Your task to perform on an android device: see tabs open on other devices in the chrome app Image 0: 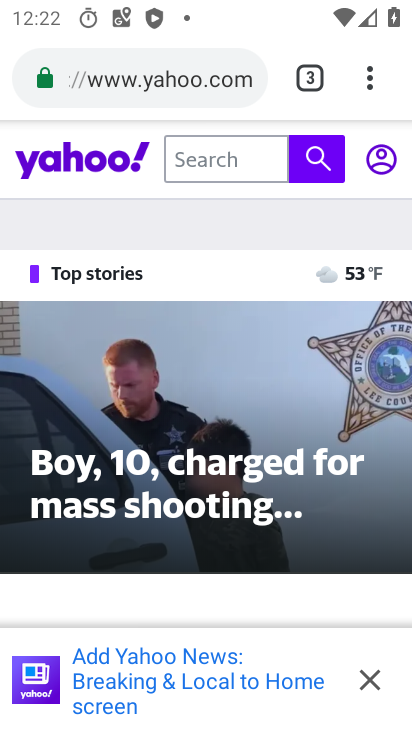
Step 0: drag from (369, 77) to (156, 376)
Your task to perform on an android device: see tabs open on other devices in the chrome app Image 1: 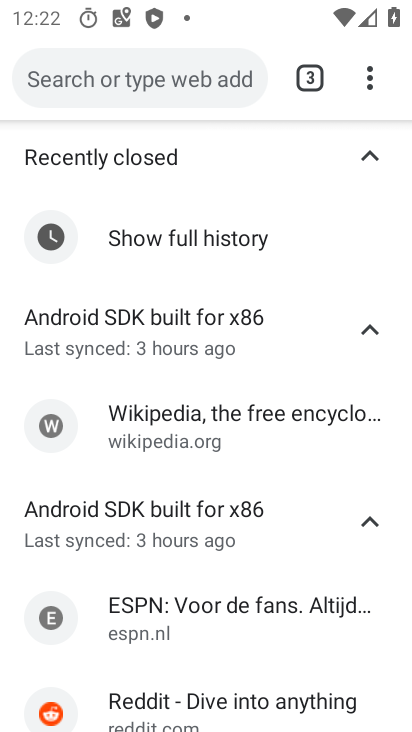
Step 1: task complete